Your task to perform on an android device: Go to accessibility settings Image 0: 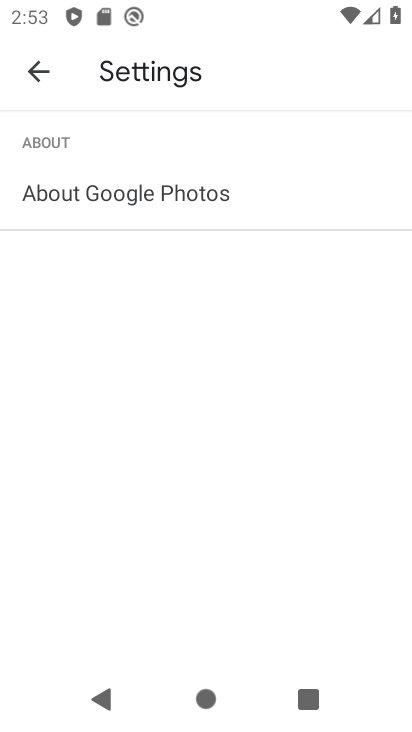
Step 0: press home button
Your task to perform on an android device: Go to accessibility settings Image 1: 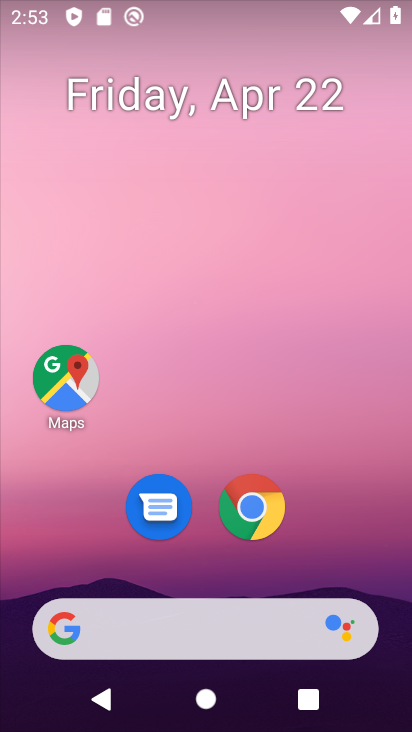
Step 1: drag from (210, 567) to (267, 9)
Your task to perform on an android device: Go to accessibility settings Image 2: 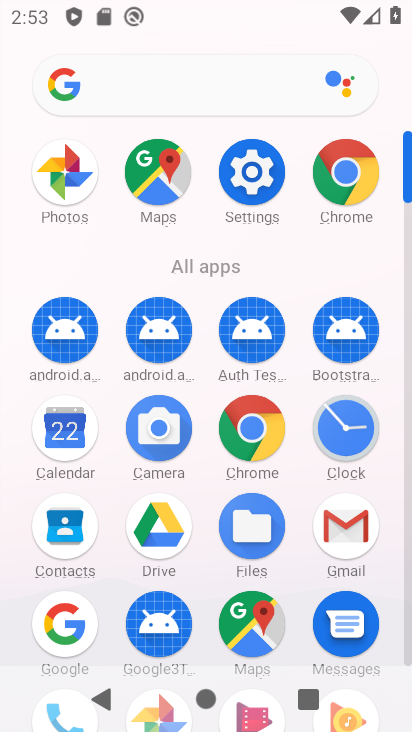
Step 2: click (253, 167)
Your task to perform on an android device: Go to accessibility settings Image 3: 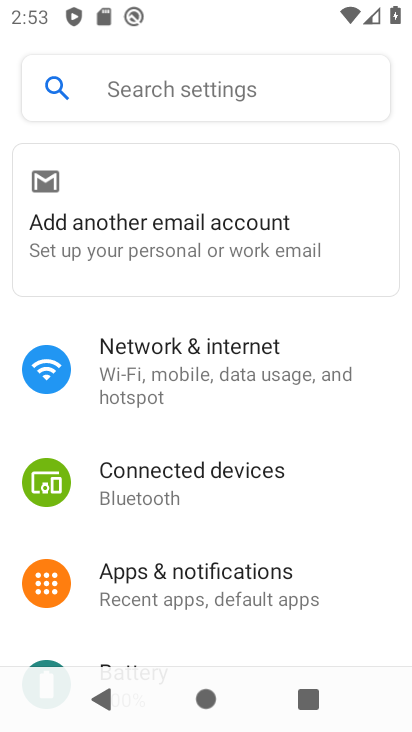
Step 3: drag from (249, 533) to (218, 102)
Your task to perform on an android device: Go to accessibility settings Image 4: 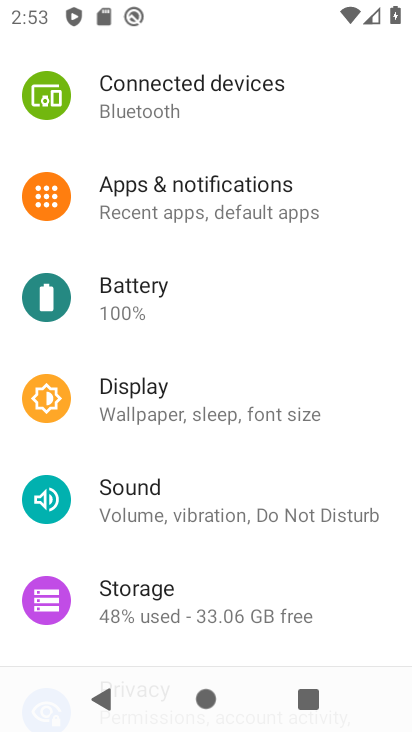
Step 4: drag from (265, 544) to (222, 79)
Your task to perform on an android device: Go to accessibility settings Image 5: 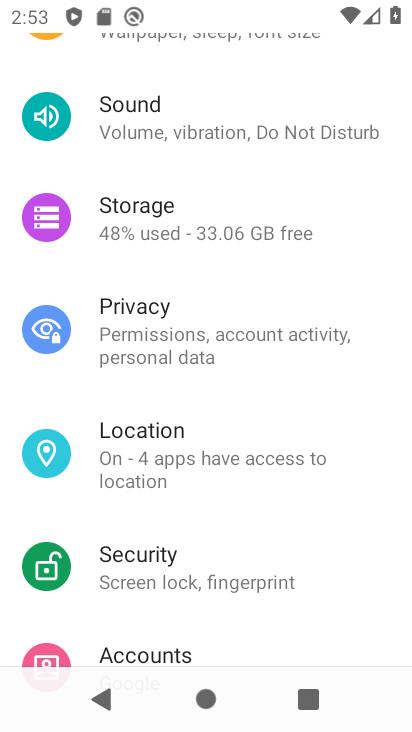
Step 5: drag from (264, 560) to (242, 136)
Your task to perform on an android device: Go to accessibility settings Image 6: 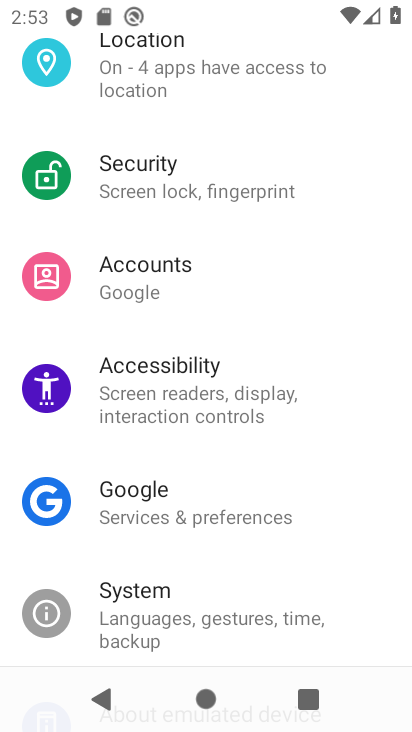
Step 6: click (181, 448)
Your task to perform on an android device: Go to accessibility settings Image 7: 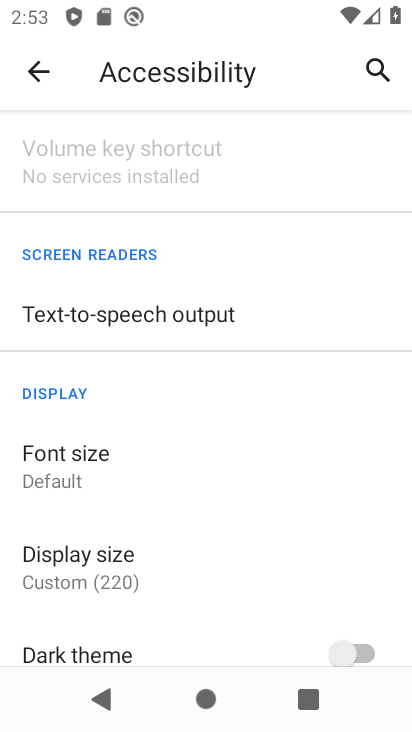
Step 7: task complete